Your task to perform on an android device: remove spam from my inbox in the gmail app Image 0: 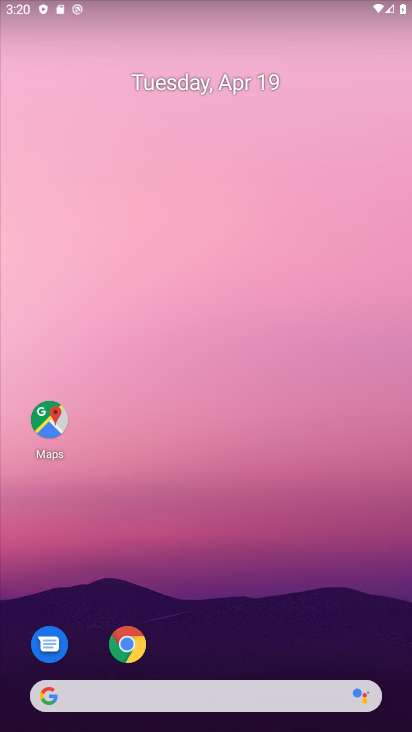
Step 0: drag from (165, 656) to (319, 157)
Your task to perform on an android device: remove spam from my inbox in the gmail app Image 1: 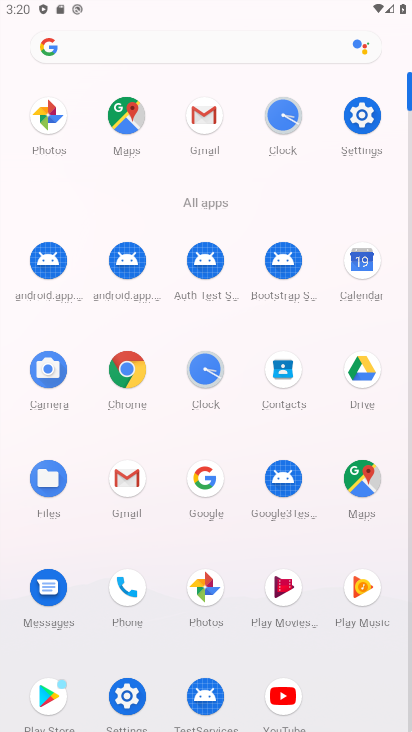
Step 1: click (130, 485)
Your task to perform on an android device: remove spam from my inbox in the gmail app Image 2: 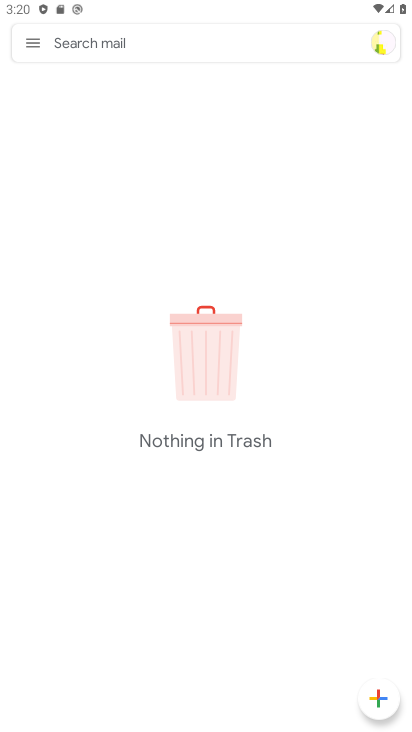
Step 2: click (41, 47)
Your task to perform on an android device: remove spam from my inbox in the gmail app Image 3: 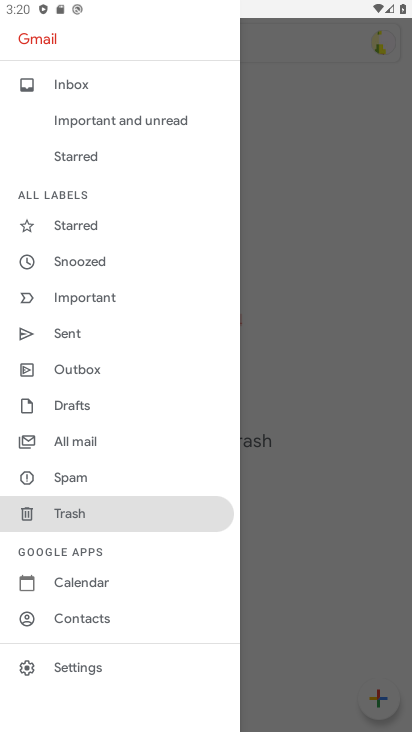
Step 3: click (97, 480)
Your task to perform on an android device: remove spam from my inbox in the gmail app Image 4: 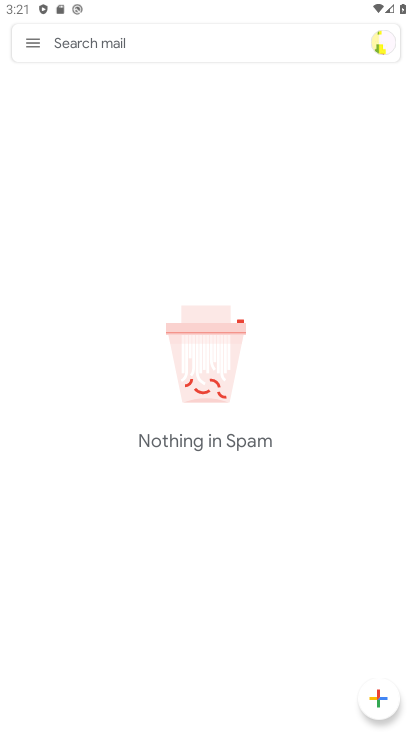
Step 4: task complete